Your task to perform on an android device: check data usage Image 0: 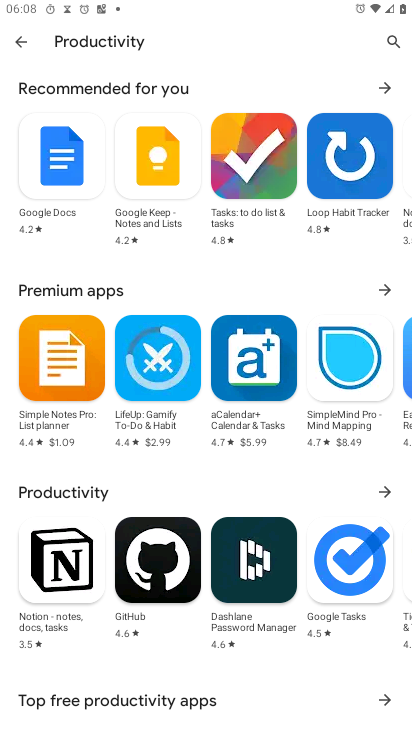
Step 0: press home button
Your task to perform on an android device: check data usage Image 1: 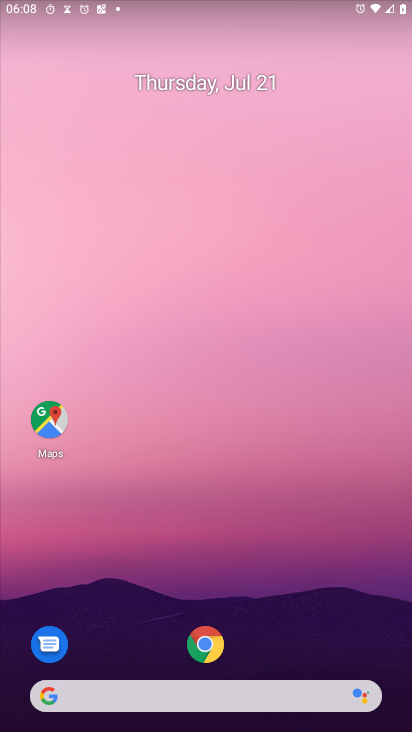
Step 1: drag from (297, 624) to (287, 128)
Your task to perform on an android device: check data usage Image 2: 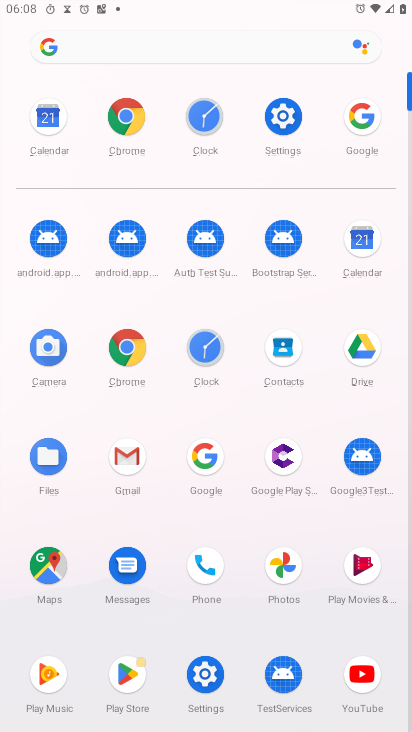
Step 2: click (284, 115)
Your task to perform on an android device: check data usage Image 3: 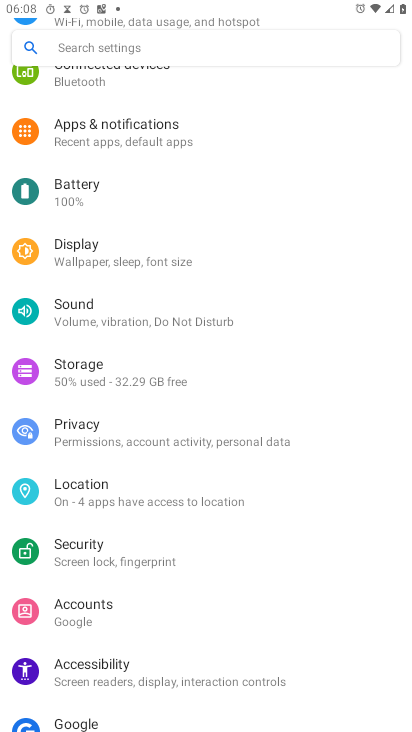
Step 3: drag from (247, 114) to (231, 615)
Your task to perform on an android device: check data usage Image 4: 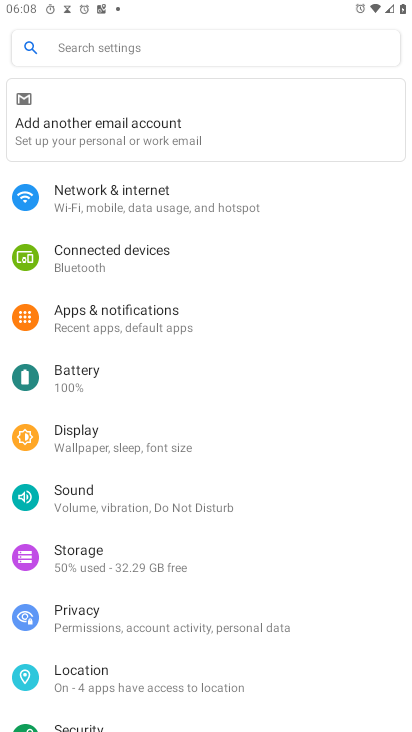
Step 4: click (114, 196)
Your task to perform on an android device: check data usage Image 5: 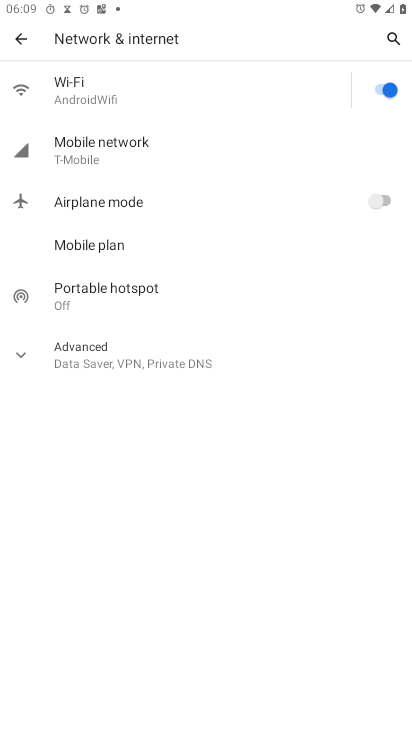
Step 5: click (133, 148)
Your task to perform on an android device: check data usage Image 6: 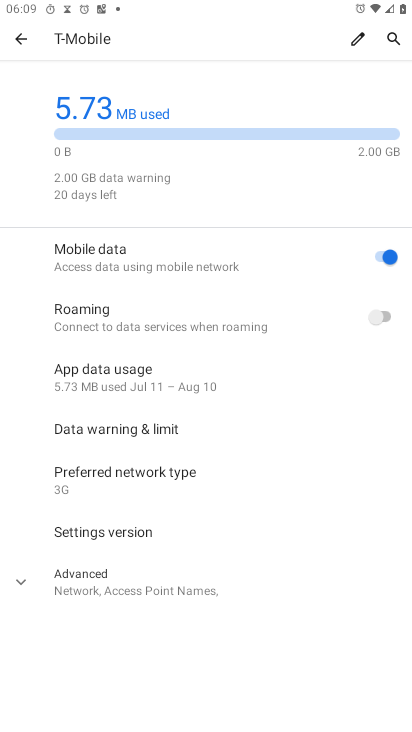
Step 6: task complete